Your task to perform on an android device: open the mobile data screen to see how much data has been used Image 0: 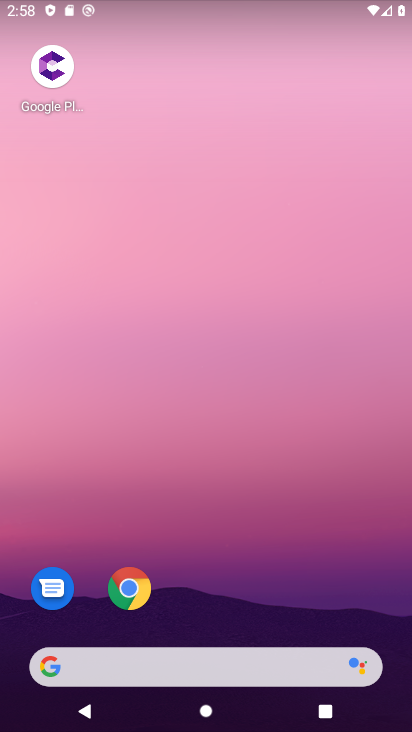
Step 0: drag from (228, 583) to (319, 111)
Your task to perform on an android device: open the mobile data screen to see how much data has been used Image 1: 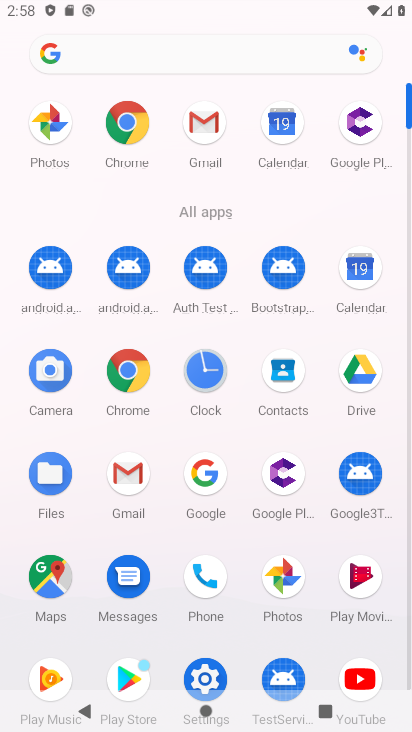
Step 1: click (202, 668)
Your task to perform on an android device: open the mobile data screen to see how much data has been used Image 2: 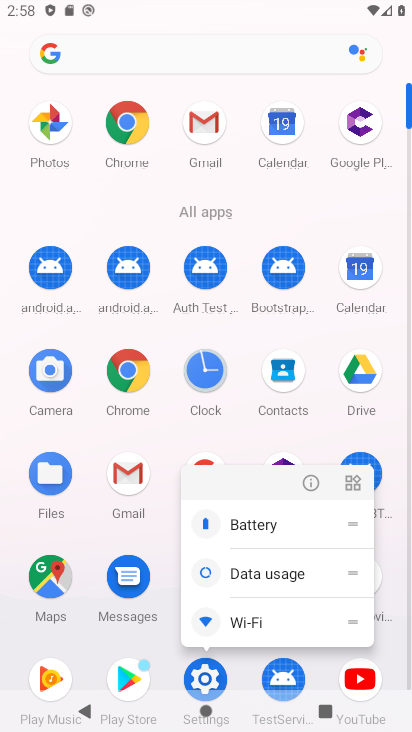
Step 2: click (201, 669)
Your task to perform on an android device: open the mobile data screen to see how much data has been used Image 3: 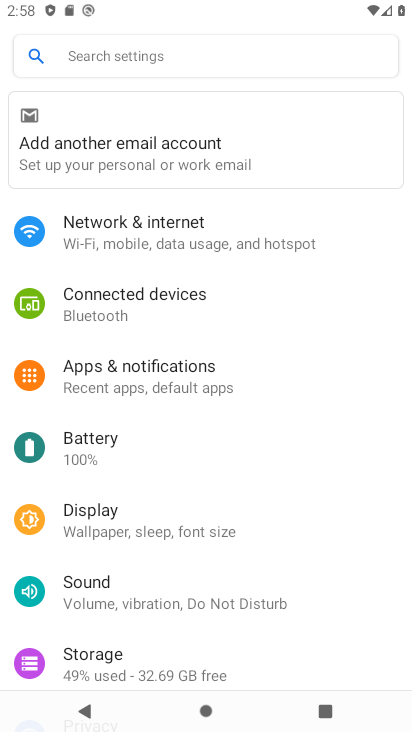
Step 3: click (209, 264)
Your task to perform on an android device: open the mobile data screen to see how much data has been used Image 4: 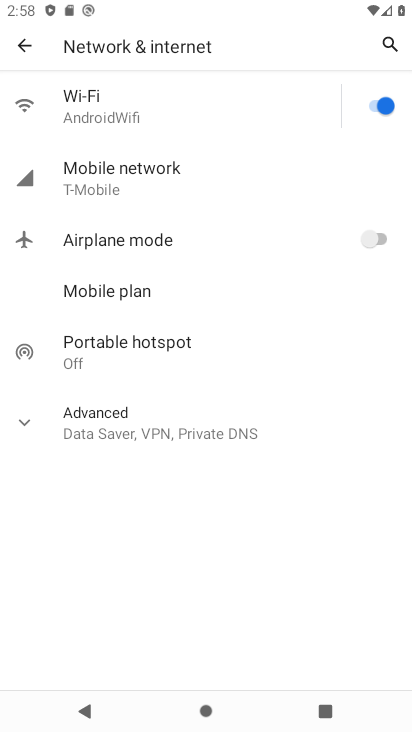
Step 4: click (210, 200)
Your task to perform on an android device: open the mobile data screen to see how much data has been used Image 5: 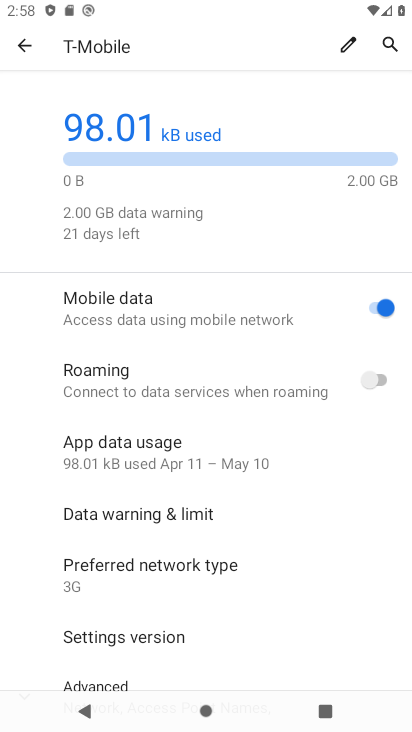
Step 5: task complete